Your task to perform on an android device: Go to eBay Image 0: 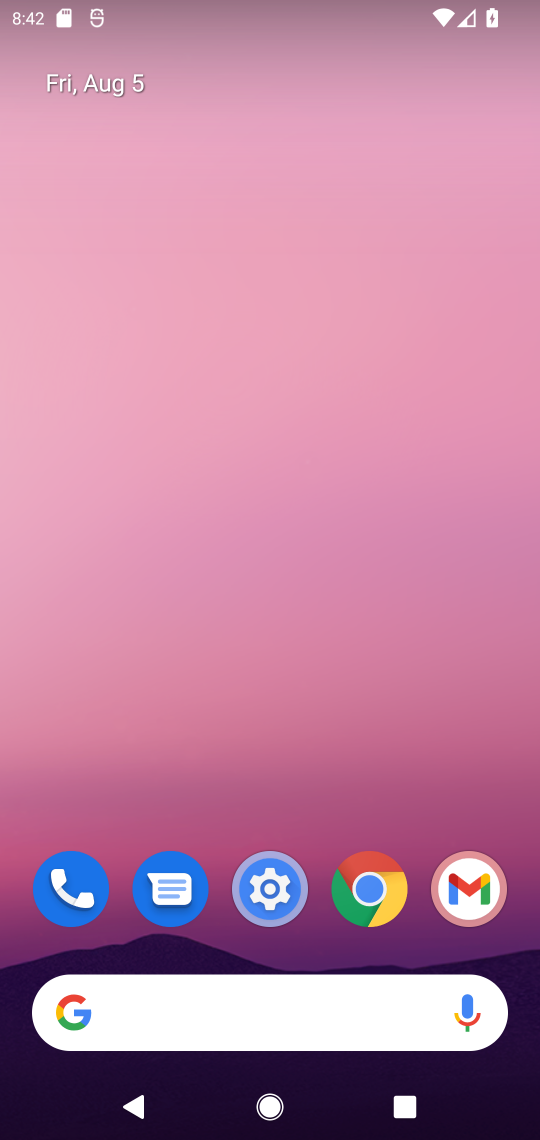
Step 0: drag from (223, 954) to (248, 201)
Your task to perform on an android device: Go to eBay Image 1: 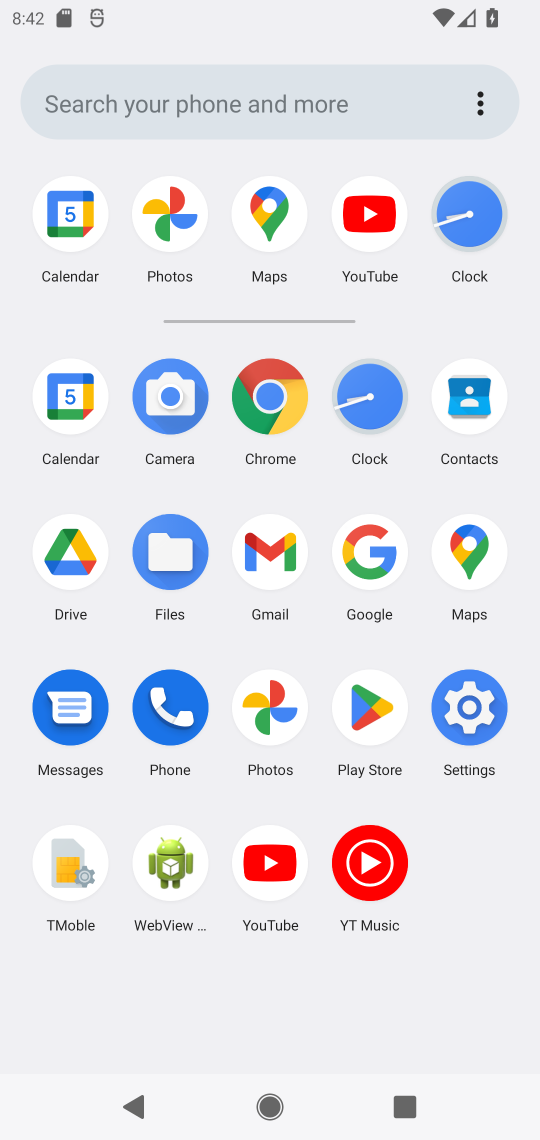
Step 1: click (293, 394)
Your task to perform on an android device: Go to eBay Image 2: 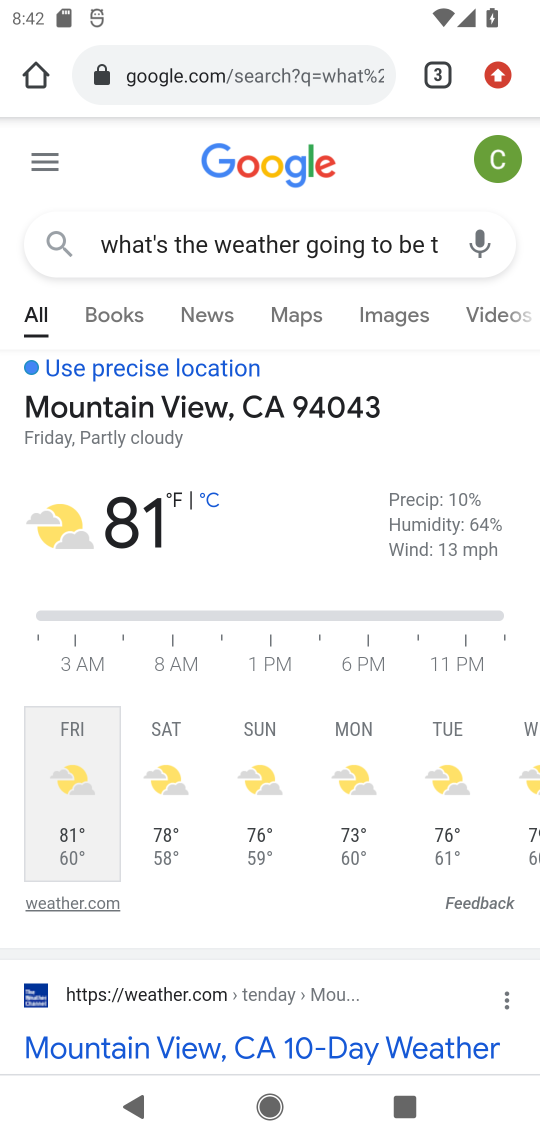
Step 2: click (513, 85)
Your task to perform on an android device: Go to eBay Image 3: 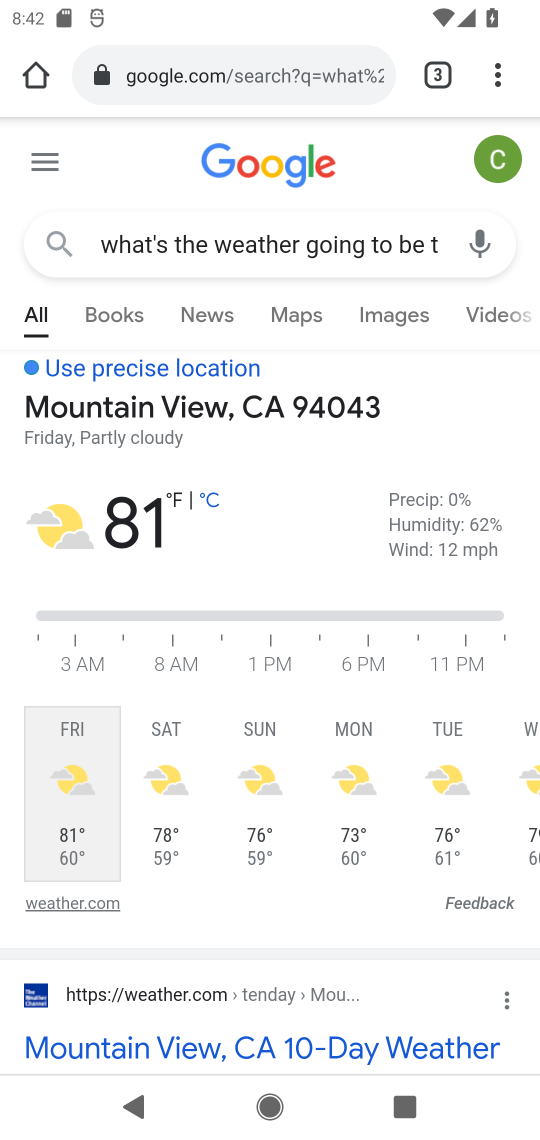
Step 3: click (506, 72)
Your task to perform on an android device: Go to eBay Image 4: 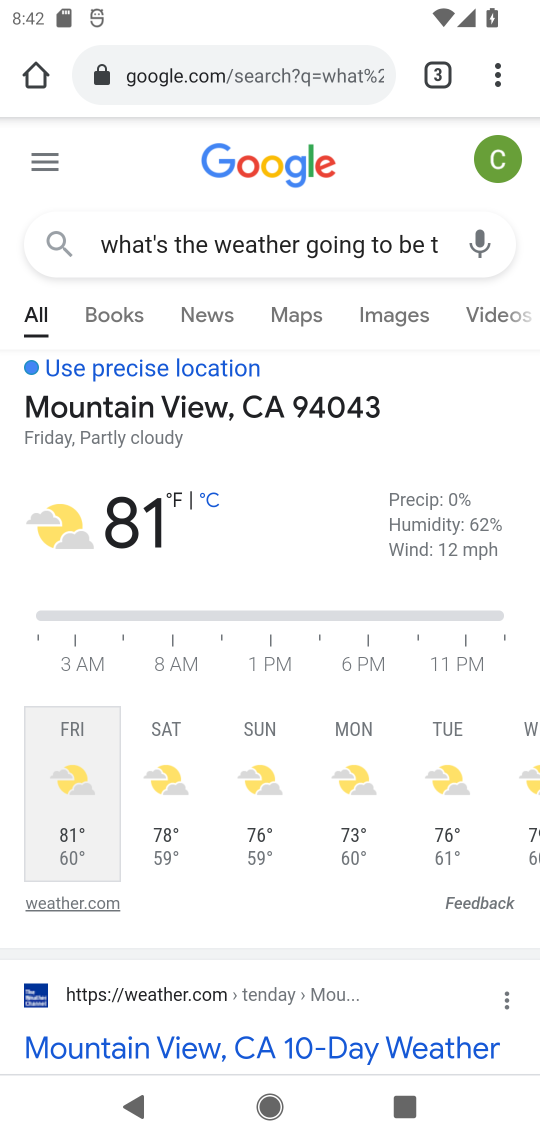
Step 4: click (501, 54)
Your task to perform on an android device: Go to eBay Image 5: 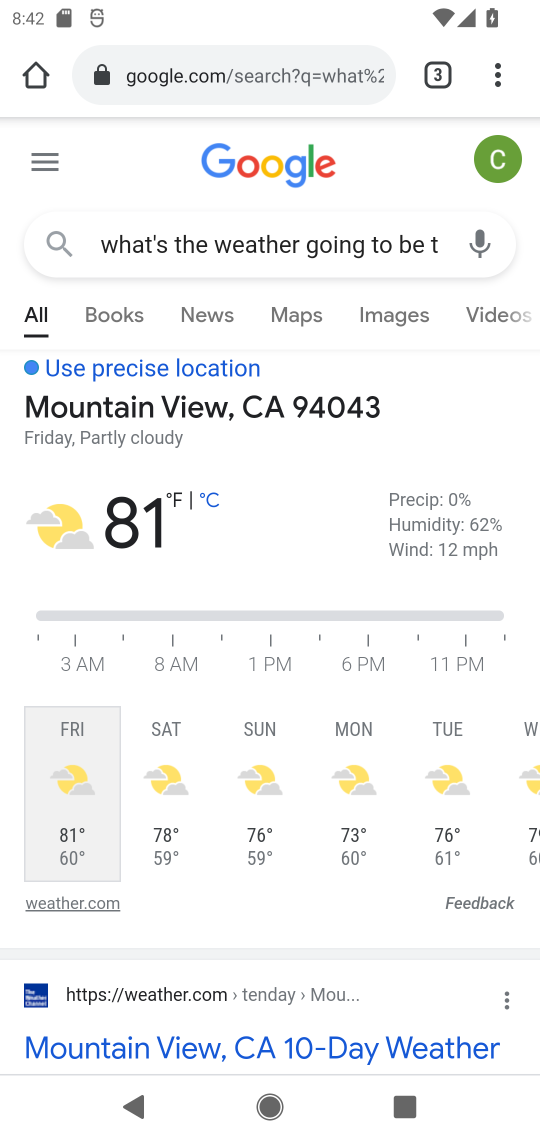
Step 5: click (495, 71)
Your task to perform on an android device: Go to eBay Image 6: 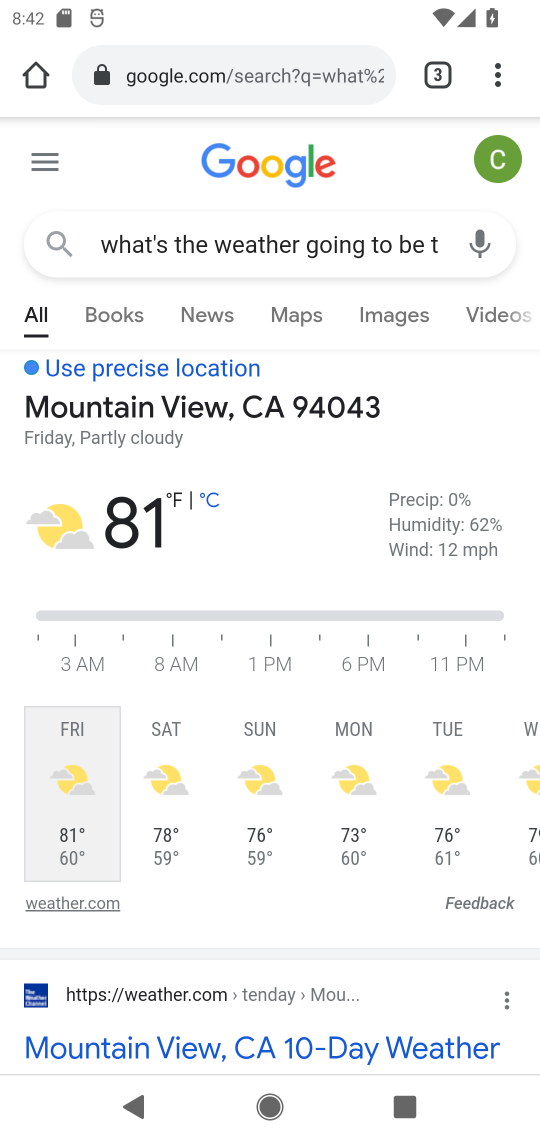
Step 6: click (520, 79)
Your task to perform on an android device: Go to eBay Image 7: 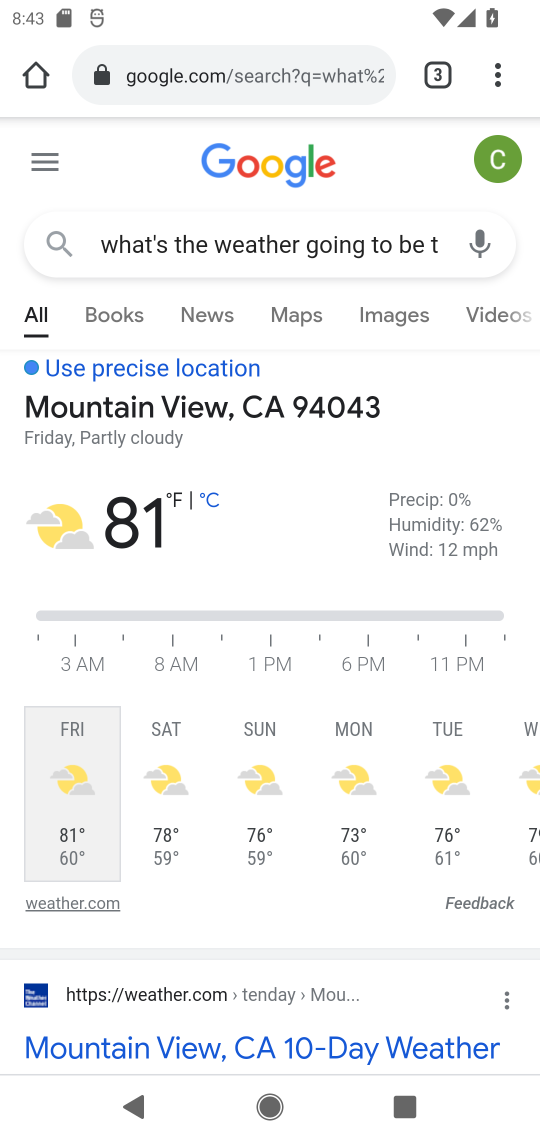
Step 7: click (530, 68)
Your task to perform on an android device: Go to eBay Image 8: 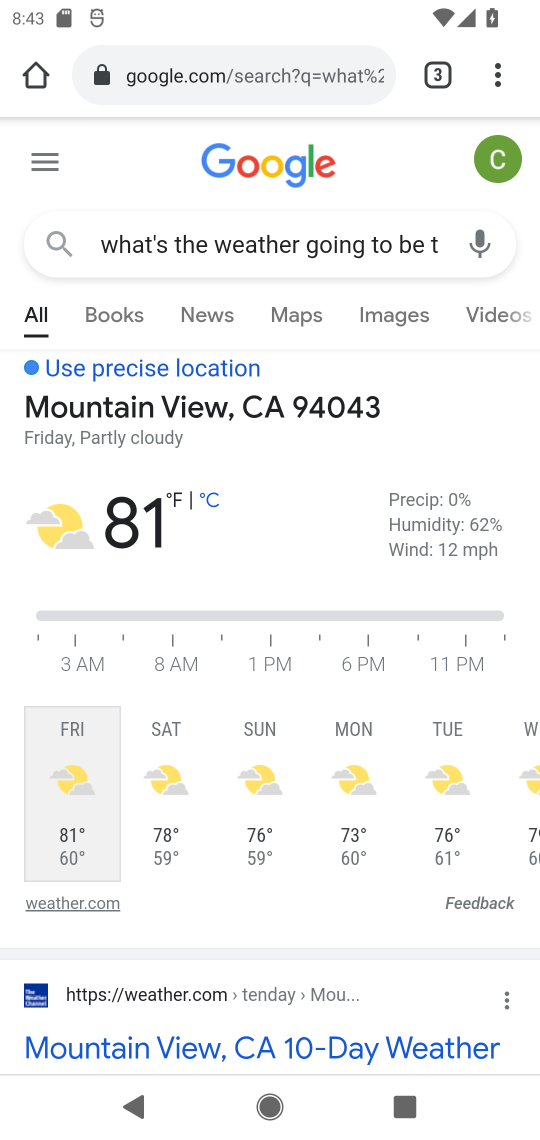
Step 8: click (522, 68)
Your task to perform on an android device: Go to eBay Image 9: 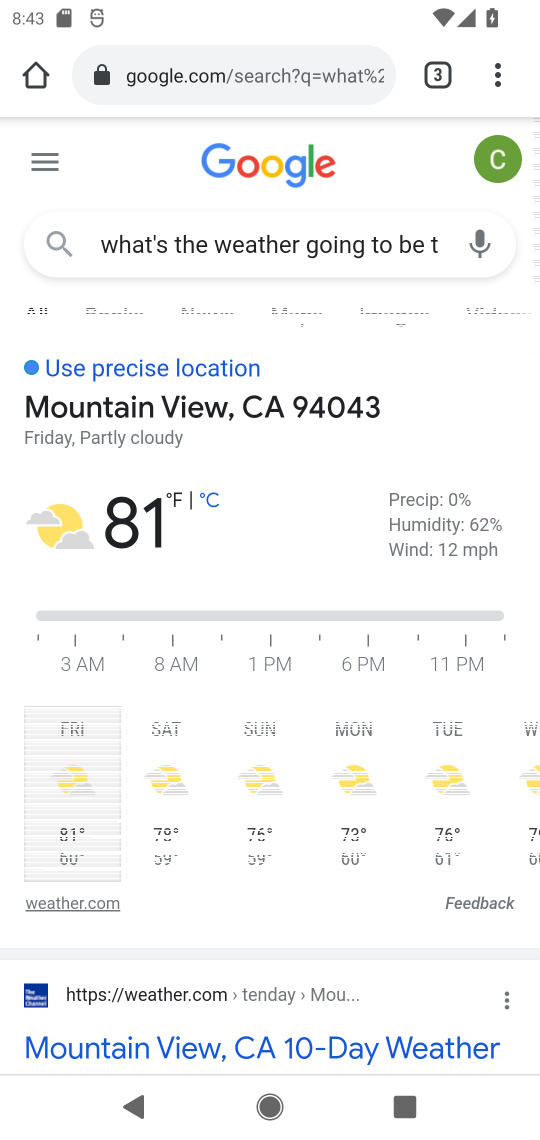
Step 9: click (522, 68)
Your task to perform on an android device: Go to eBay Image 10: 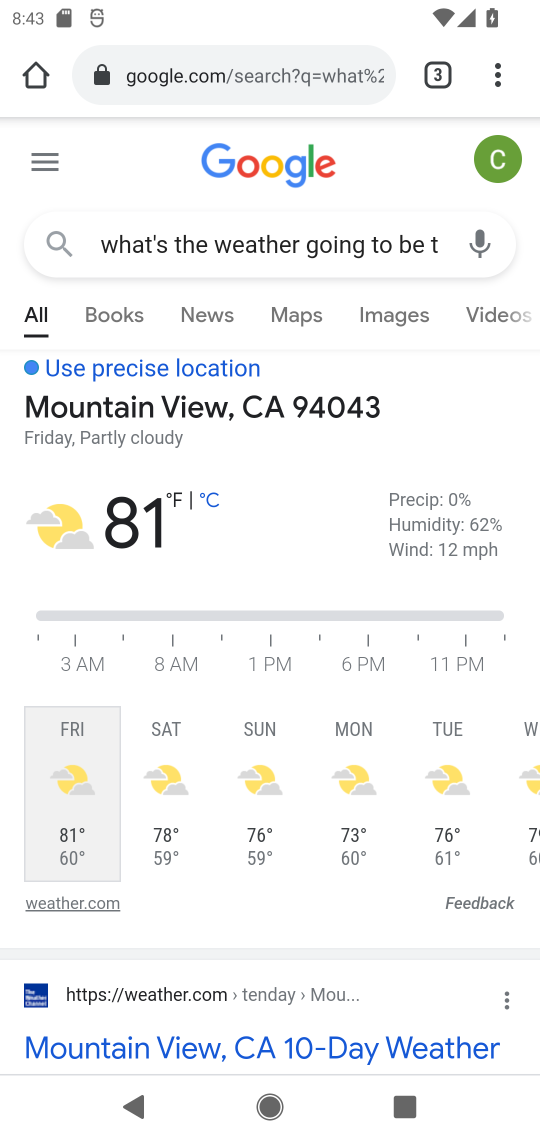
Step 10: click (516, 62)
Your task to perform on an android device: Go to eBay Image 11: 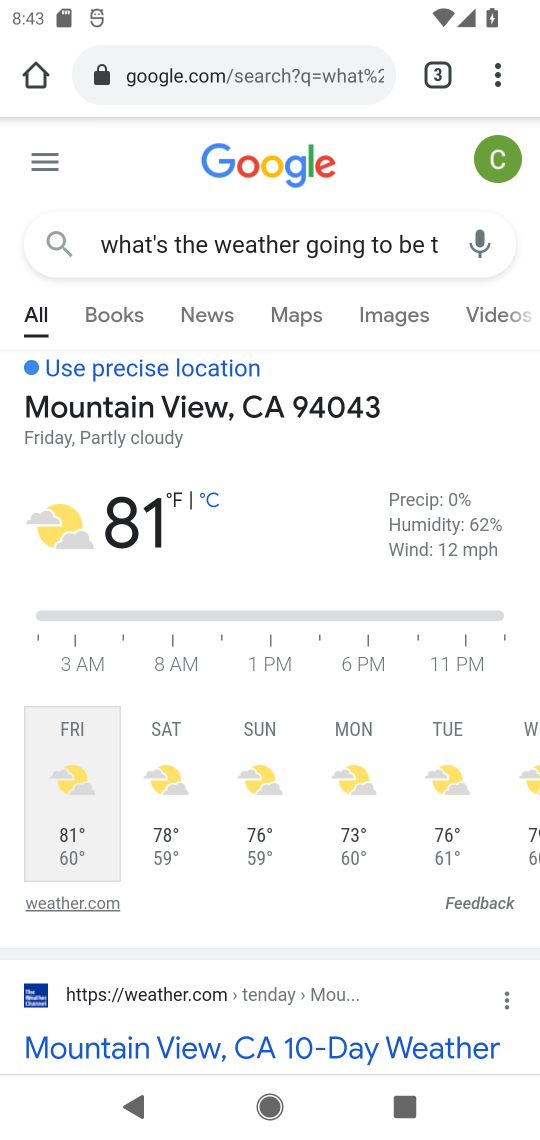
Step 11: click (507, 74)
Your task to perform on an android device: Go to eBay Image 12: 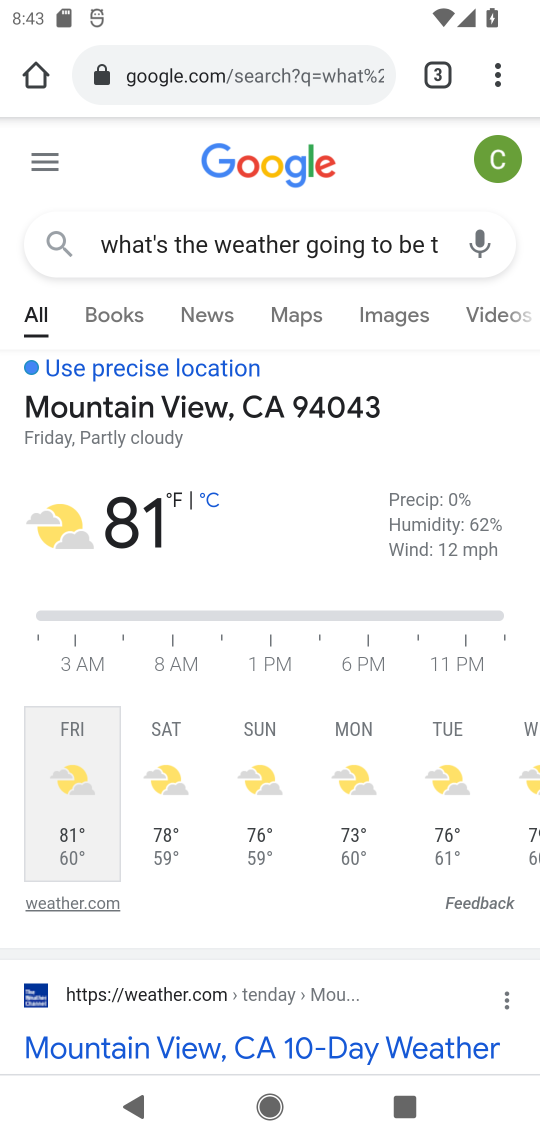
Step 12: click (507, 74)
Your task to perform on an android device: Go to eBay Image 13: 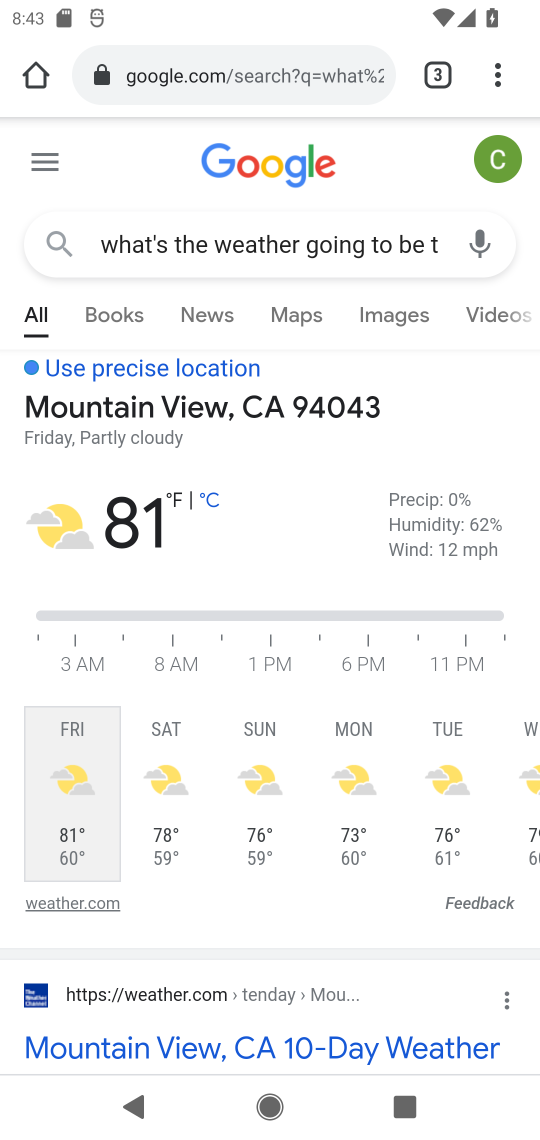
Step 13: click (497, 89)
Your task to perform on an android device: Go to eBay Image 14: 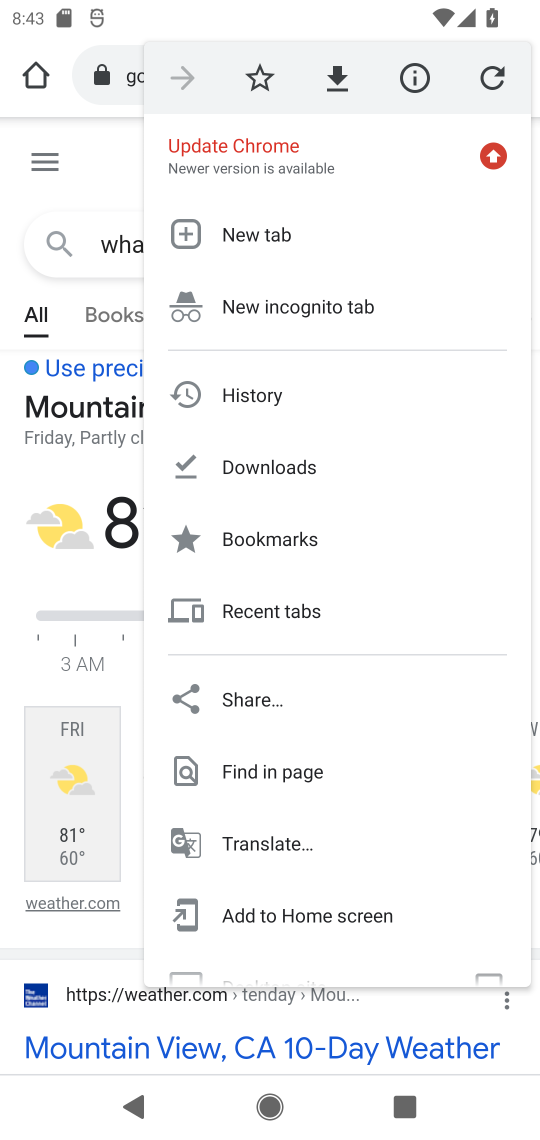
Step 14: click (254, 245)
Your task to perform on an android device: Go to eBay Image 15: 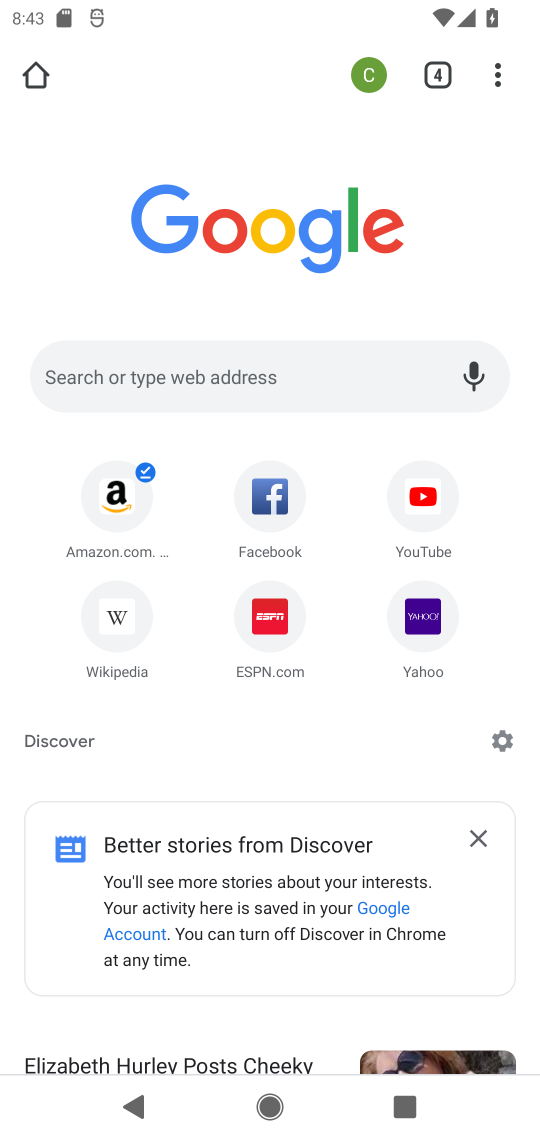
Step 15: click (159, 365)
Your task to perform on an android device: Go to eBay Image 16: 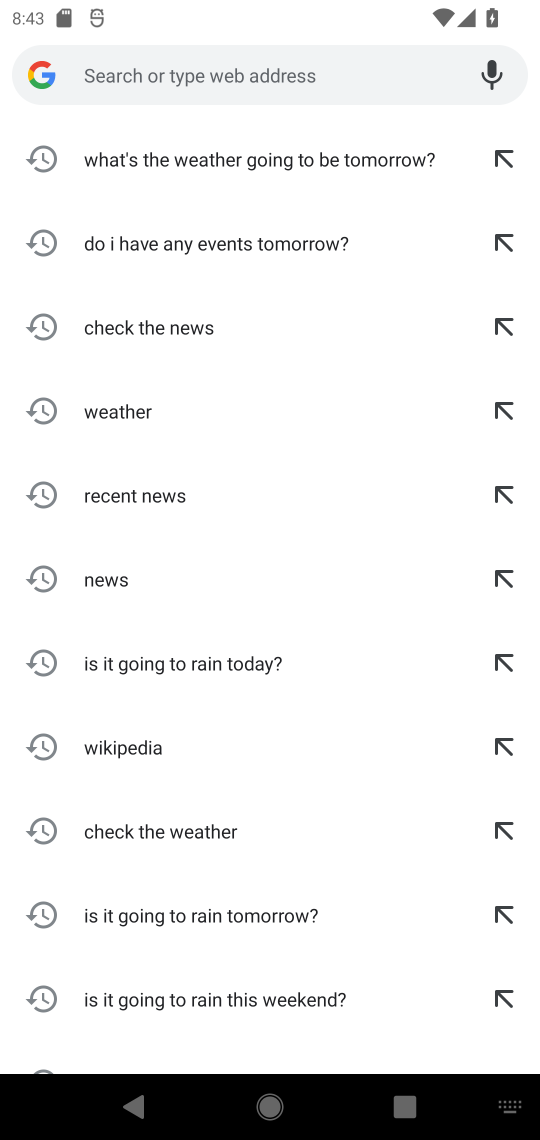
Step 16: type " eBay "
Your task to perform on an android device: Go to eBay Image 17: 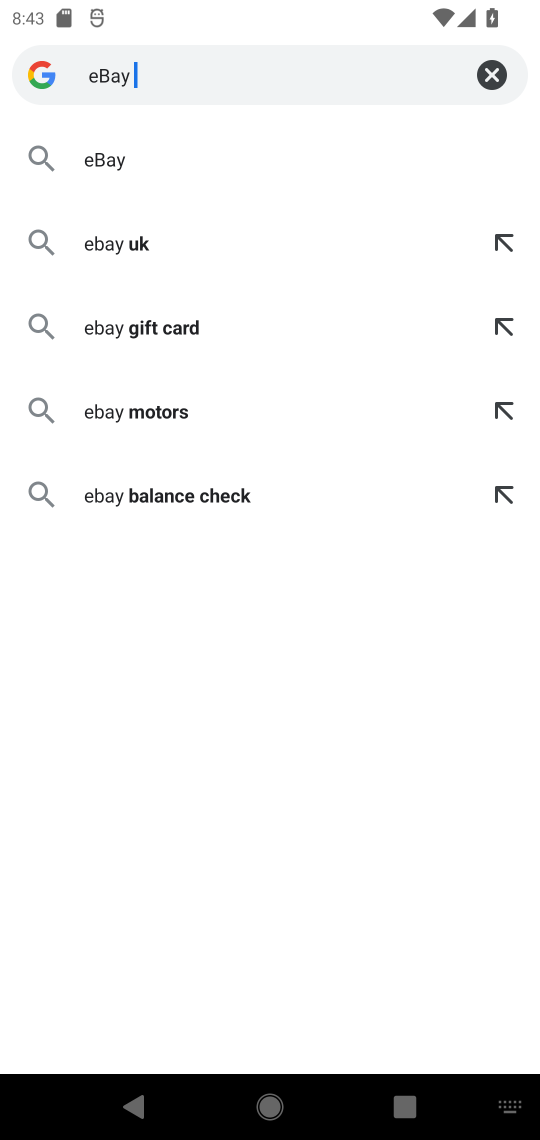
Step 17: click (101, 171)
Your task to perform on an android device: Go to eBay Image 18: 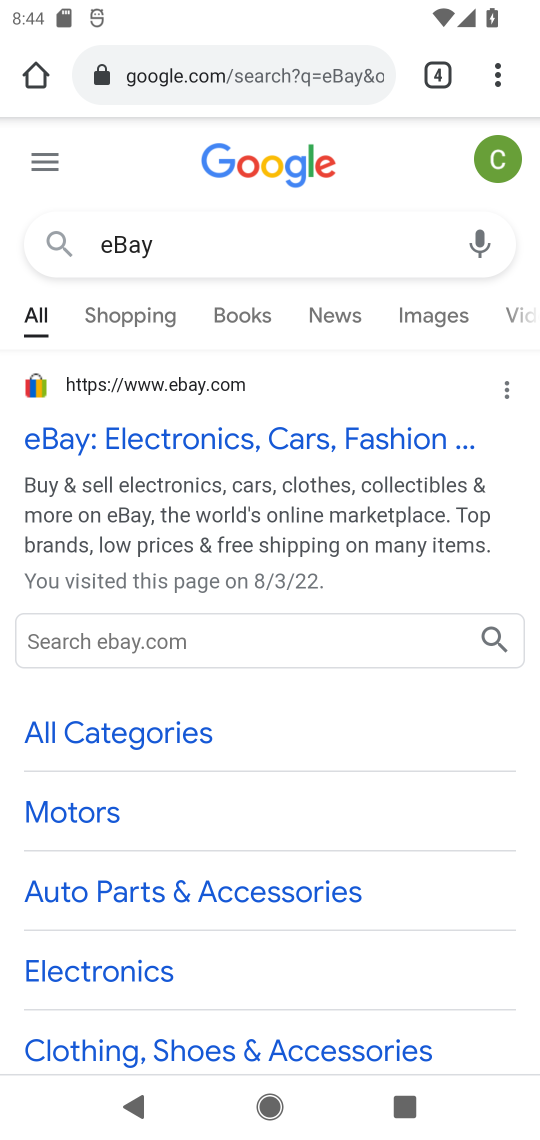
Step 18: task complete